Your task to perform on an android device: Open the calendar app, open the side menu, and click the "Day" option Image 0: 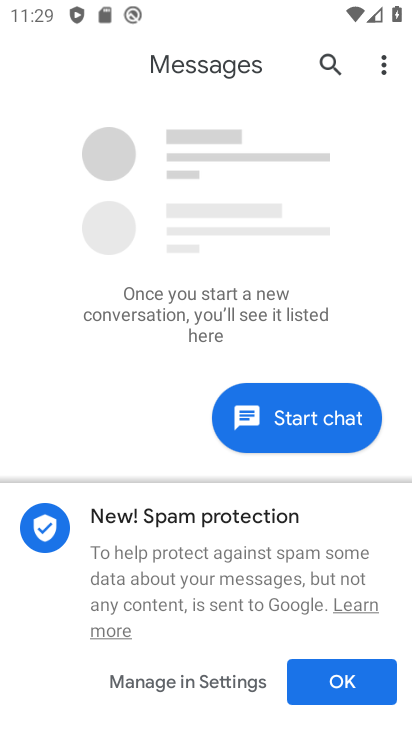
Step 0: press home button
Your task to perform on an android device: Open the calendar app, open the side menu, and click the "Day" option Image 1: 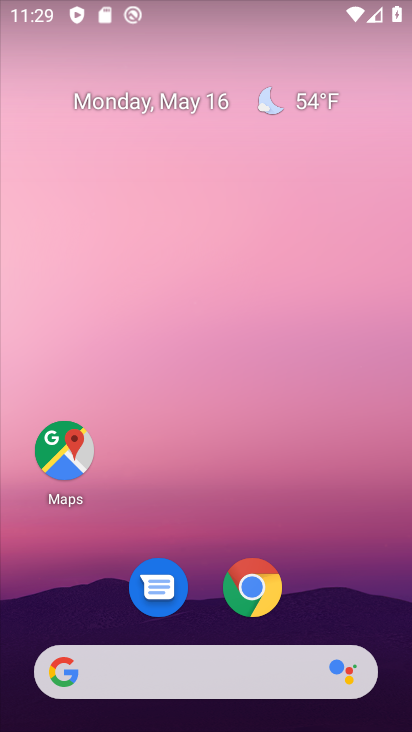
Step 1: drag from (213, 615) to (273, 122)
Your task to perform on an android device: Open the calendar app, open the side menu, and click the "Day" option Image 2: 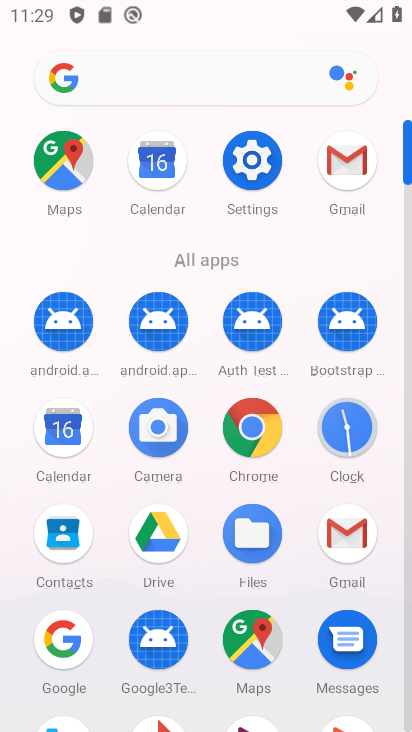
Step 2: click (46, 445)
Your task to perform on an android device: Open the calendar app, open the side menu, and click the "Day" option Image 3: 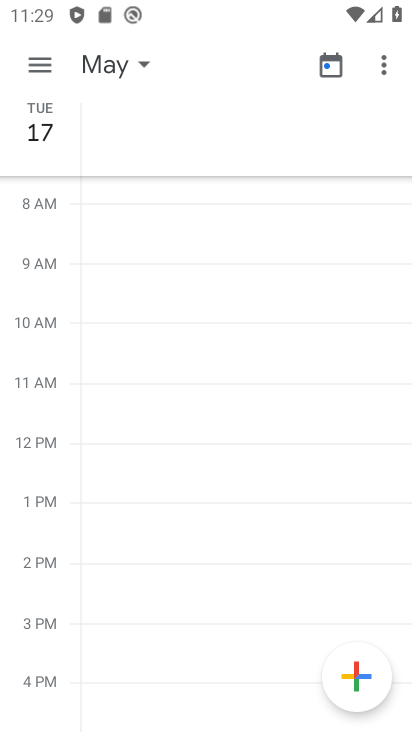
Step 3: click (44, 53)
Your task to perform on an android device: Open the calendar app, open the side menu, and click the "Day" option Image 4: 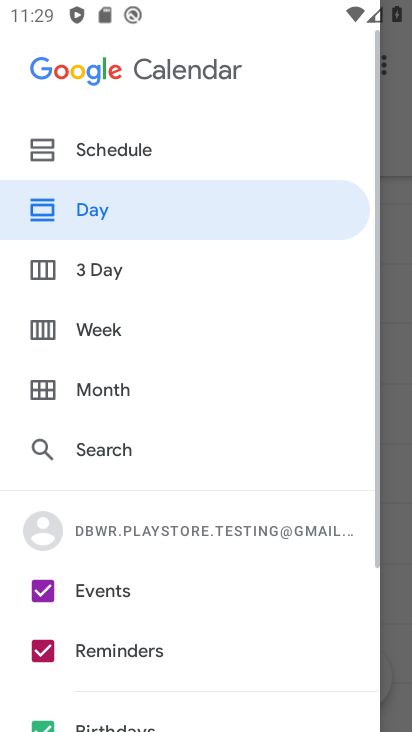
Step 4: task complete